Your task to perform on an android device: add a contact in the contacts app Image 0: 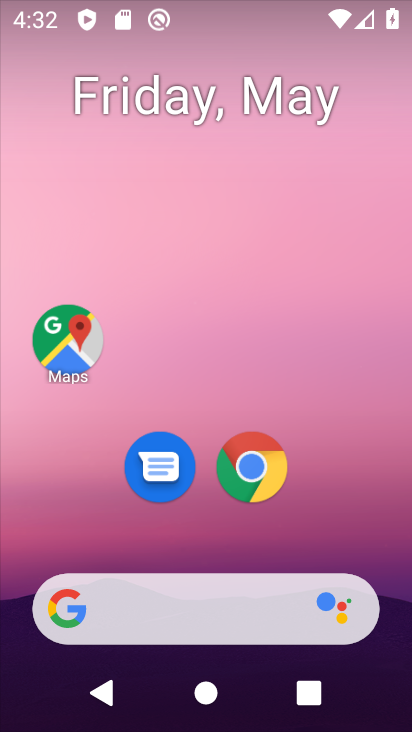
Step 0: drag from (327, 517) to (352, 76)
Your task to perform on an android device: add a contact in the contacts app Image 1: 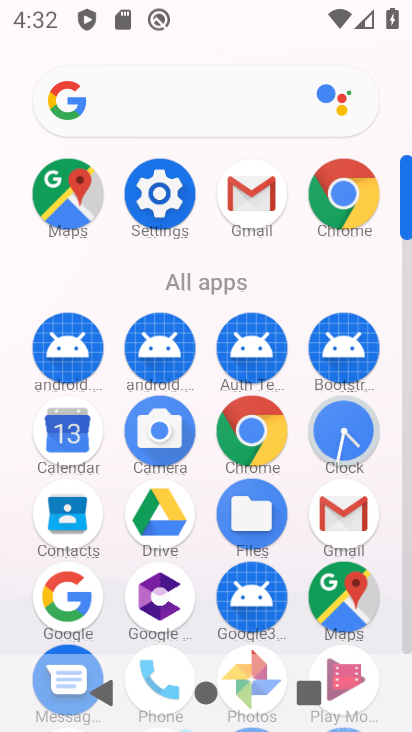
Step 1: click (73, 514)
Your task to perform on an android device: add a contact in the contacts app Image 2: 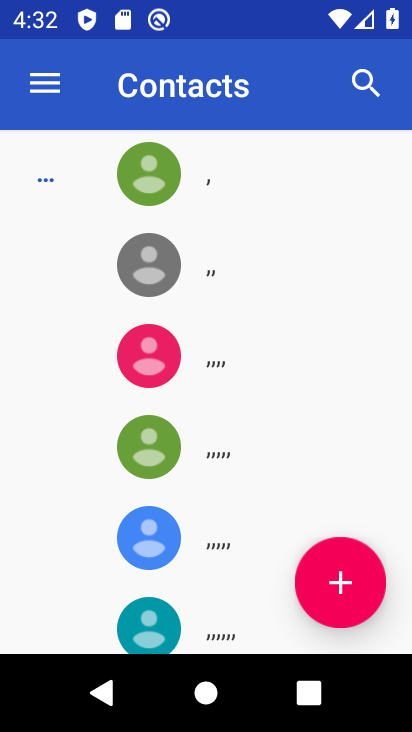
Step 2: click (336, 577)
Your task to perform on an android device: add a contact in the contacts app Image 3: 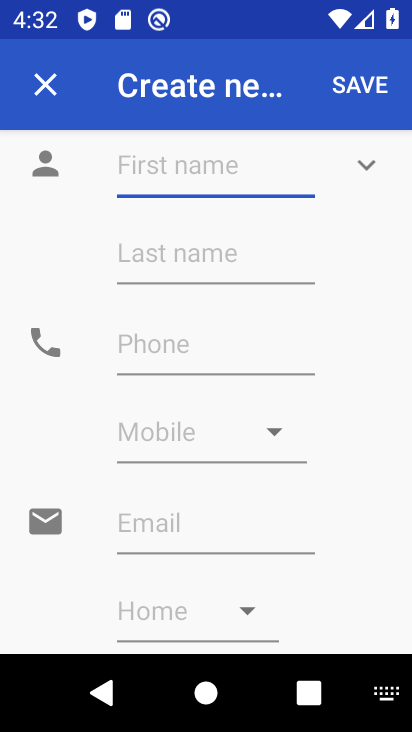
Step 3: click (206, 160)
Your task to perform on an android device: add a contact in the contacts app Image 4: 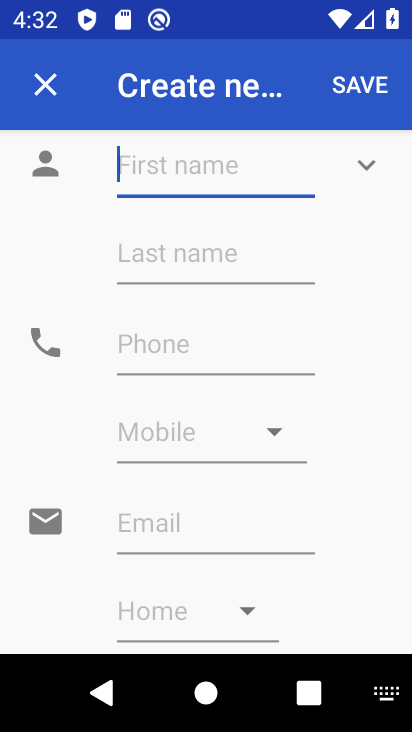
Step 4: type "tararara"
Your task to perform on an android device: add a contact in the contacts app Image 5: 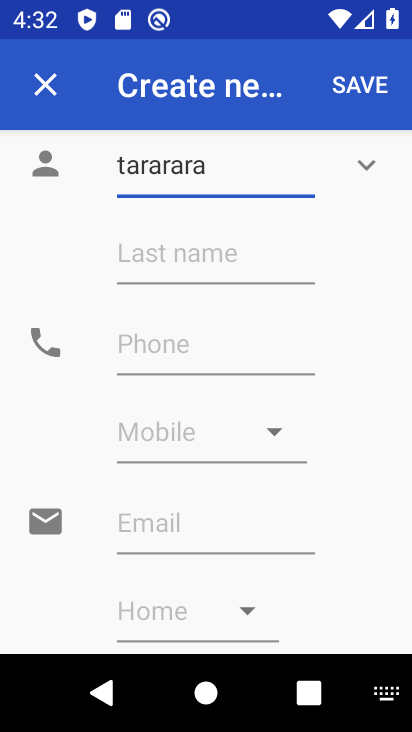
Step 5: click (343, 95)
Your task to perform on an android device: add a contact in the contacts app Image 6: 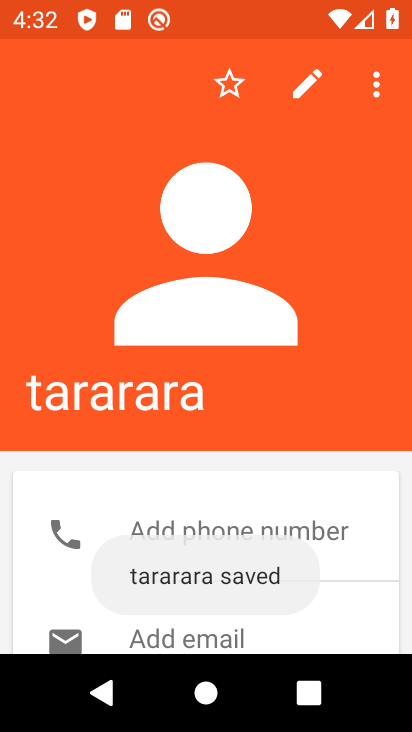
Step 6: task complete